Your task to perform on an android device: add a contact in the contacts app Image 0: 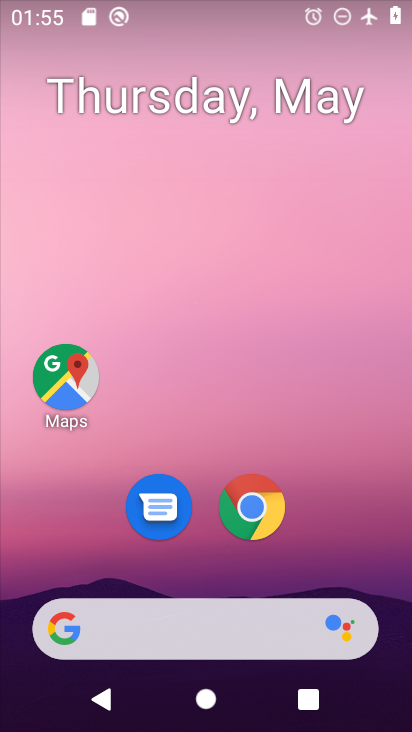
Step 0: drag from (344, 572) to (345, 41)
Your task to perform on an android device: add a contact in the contacts app Image 1: 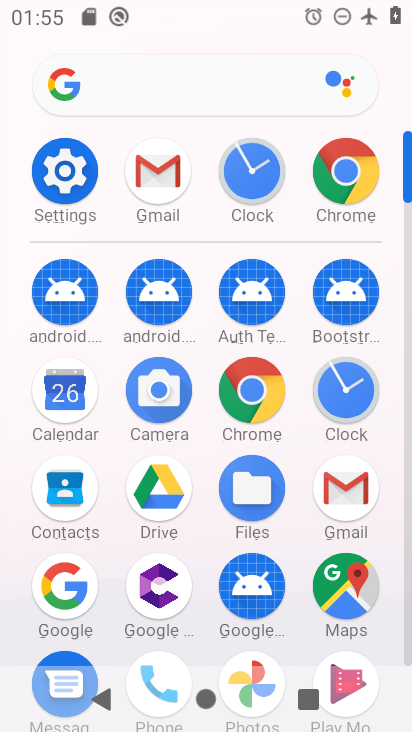
Step 1: click (43, 508)
Your task to perform on an android device: add a contact in the contacts app Image 2: 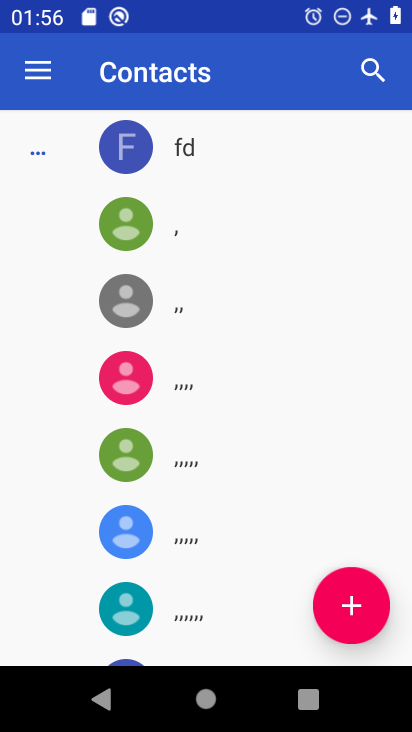
Step 2: click (354, 621)
Your task to perform on an android device: add a contact in the contacts app Image 3: 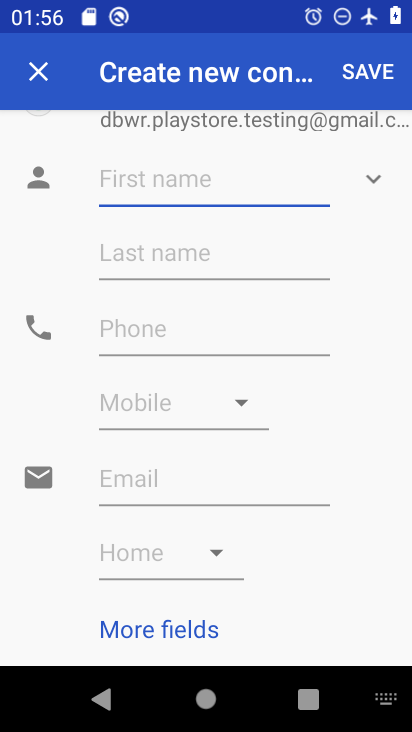
Step 3: type "sdsa"
Your task to perform on an android device: add a contact in the contacts app Image 4: 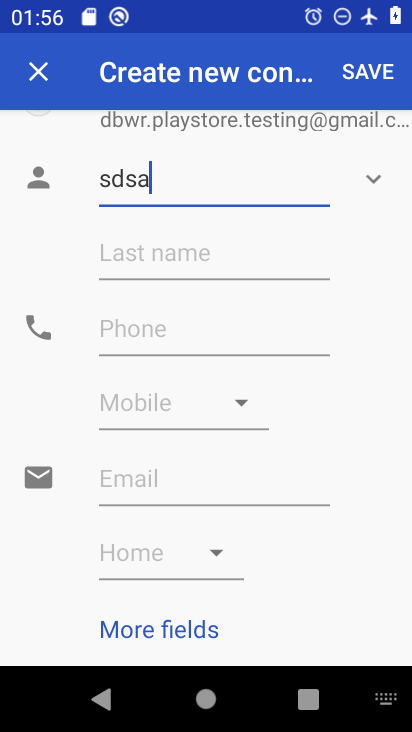
Step 4: click (376, 58)
Your task to perform on an android device: add a contact in the contacts app Image 5: 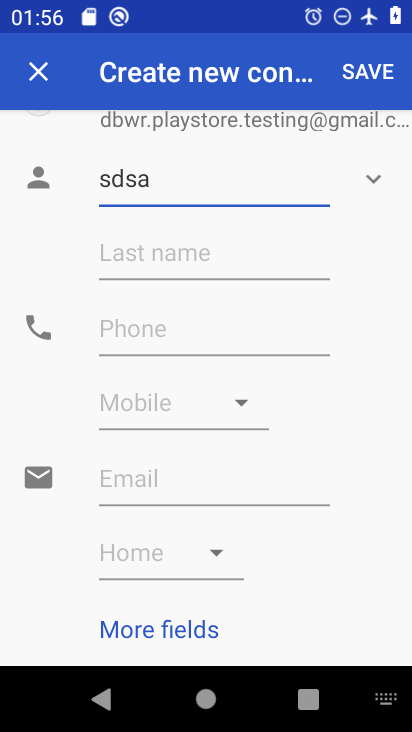
Step 5: click (376, 58)
Your task to perform on an android device: add a contact in the contacts app Image 6: 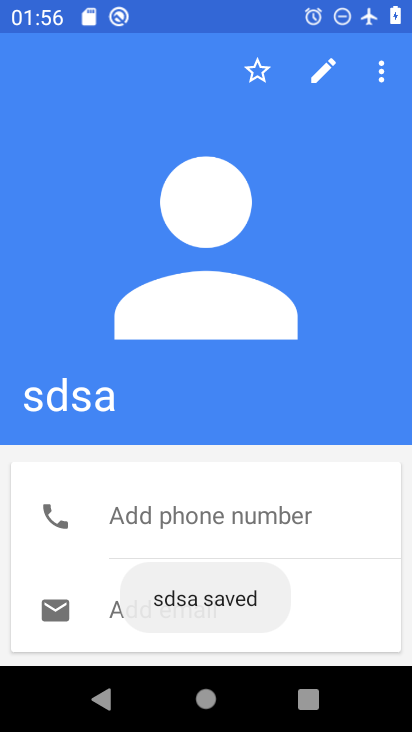
Step 6: task complete